Your task to perform on an android device: open a bookmark in the chrome app Image 0: 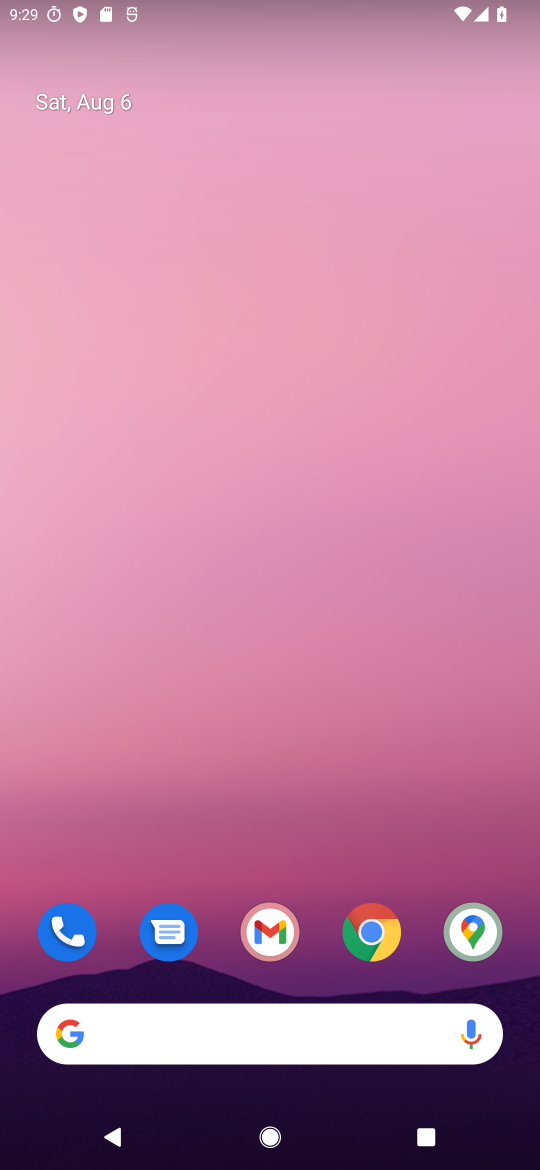
Step 0: click (365, 930)
Your task to perform on an android device: open a bookmark in the chrome app Image 1: 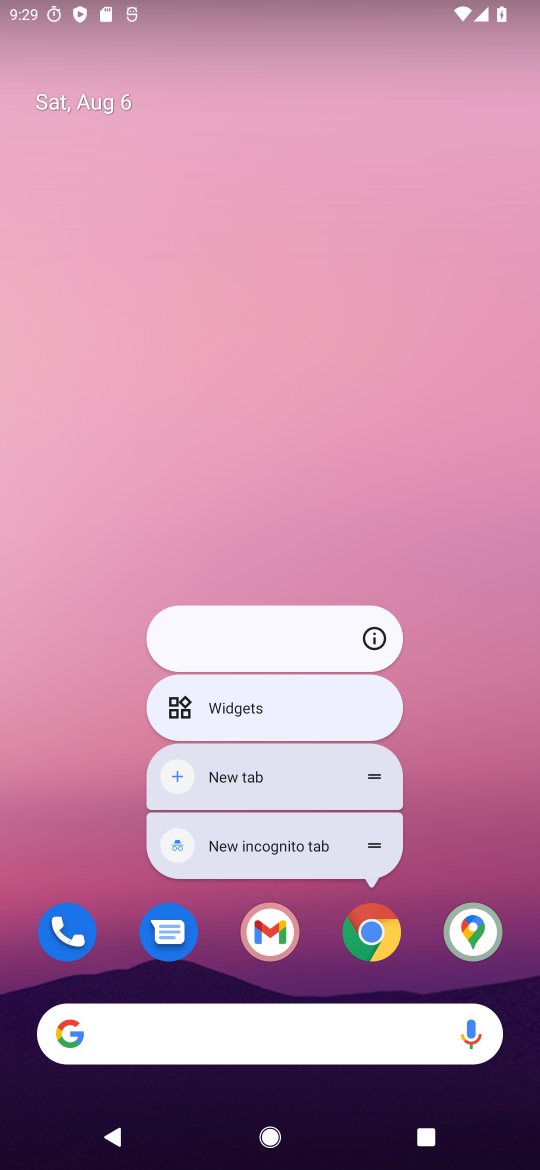
Step 1: click (365, 930)
Your task to perform on an android device: open a bookmark in the chrome app Image 2: 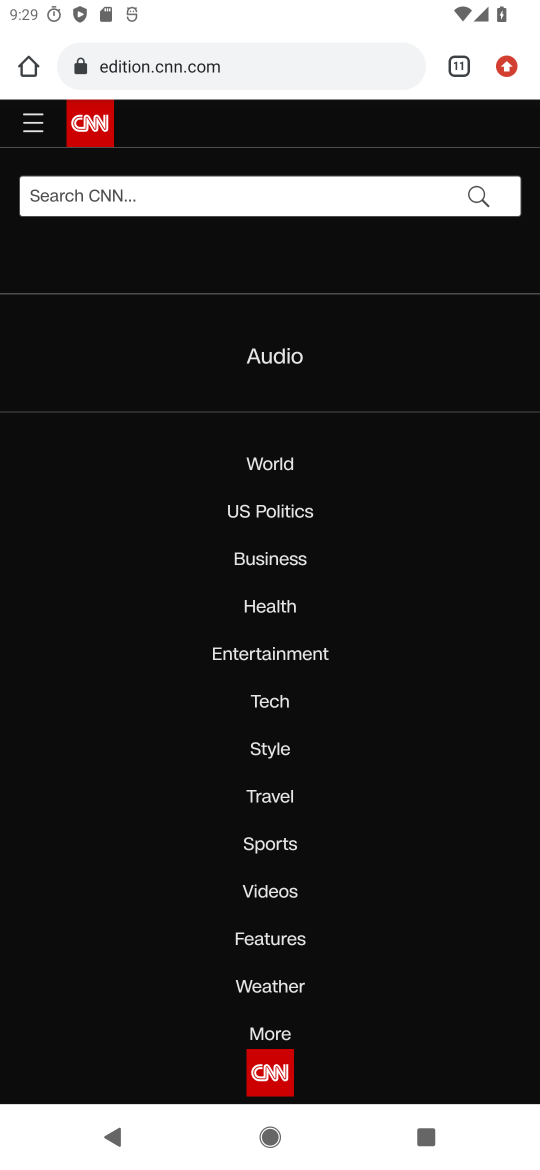
Step 2: task complete